Your task to perform on an android device: change alarm snooze length Image 0: 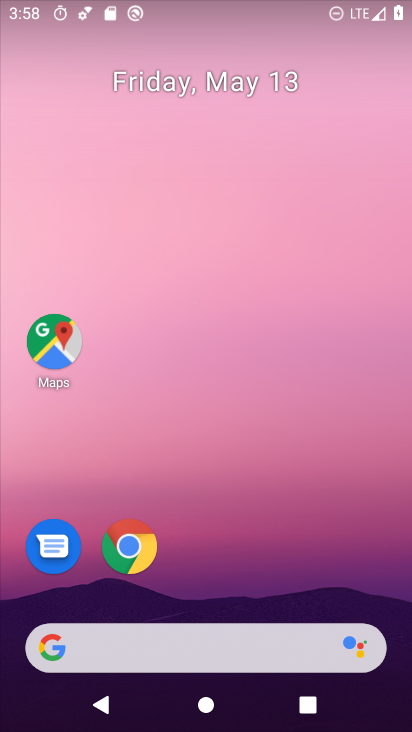
Step 0: drag from (256, 616) to (266, 180)
Your task to perform on an android device: change alarm snooze length Image 1: 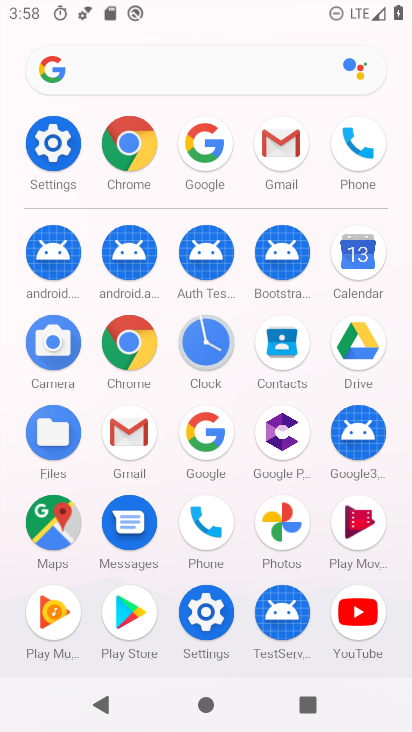
Step 1: click (60, 157)
Your task to perform on an android device: change alarm snooze length Image 2: 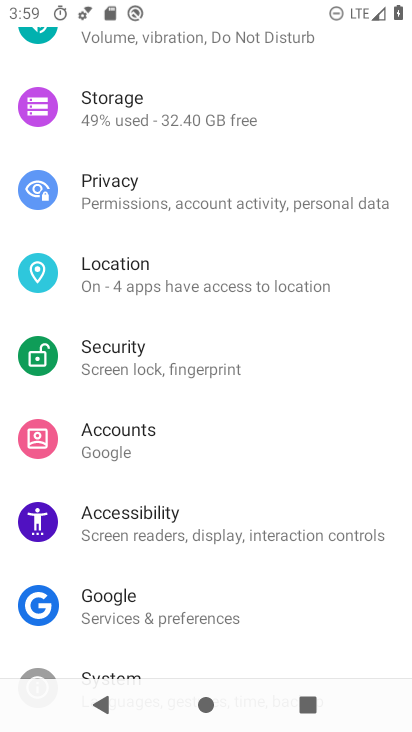
Step 2: press home button
Your task to perform on an android device: change alarm snooze length Image 3: 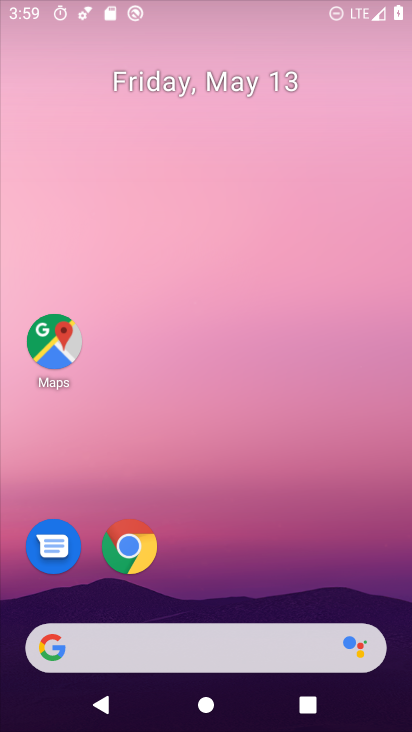
Step 3: drag from (243, 588) to (272, 166)
Your task to perform on an android device: change alarm snooze length Image 4: 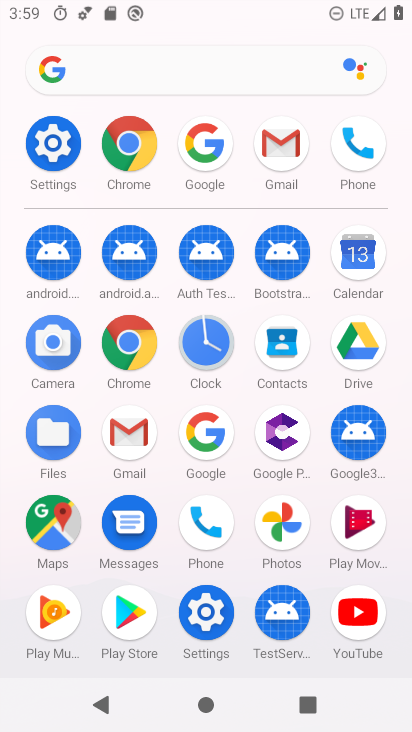
Step 4: click (213, 362)
Your task to perform on an android device: change alarm snooze length Image 5: 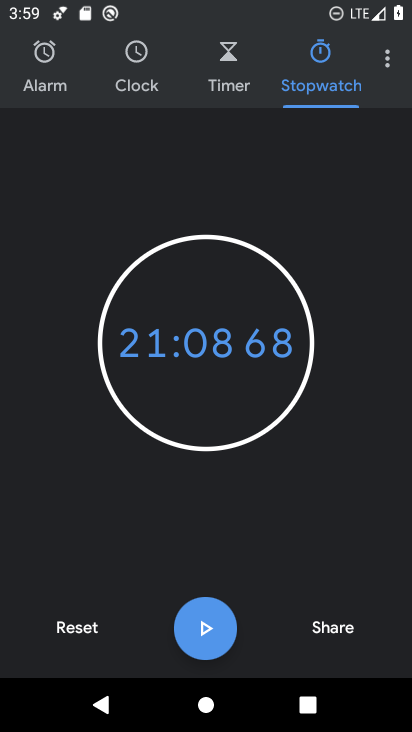
Step 5: click (389, 73)
Your task to perform on an android device: change alarm snooze length Image 6: 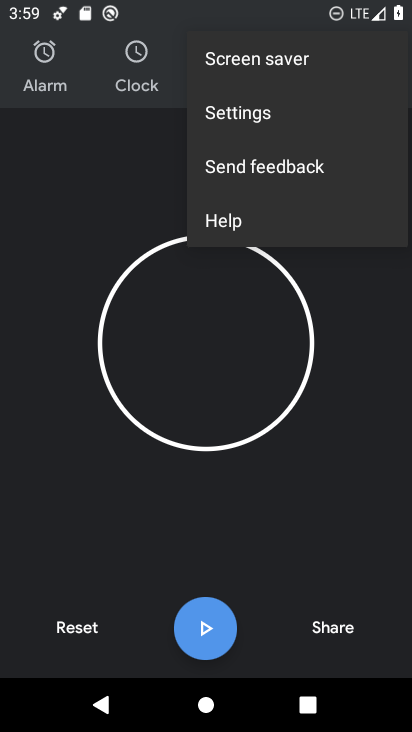
Step 6: click (239, 119)
Your task to perform on an android device: change alarm snooze length Image 7: 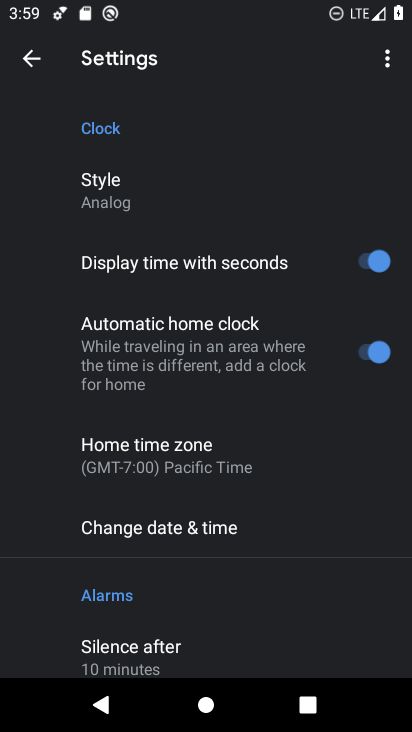
Step 7: drag from (252, 531) to (287, 272)
Your task to perform on an android device: change alarm snooze length Image 8: 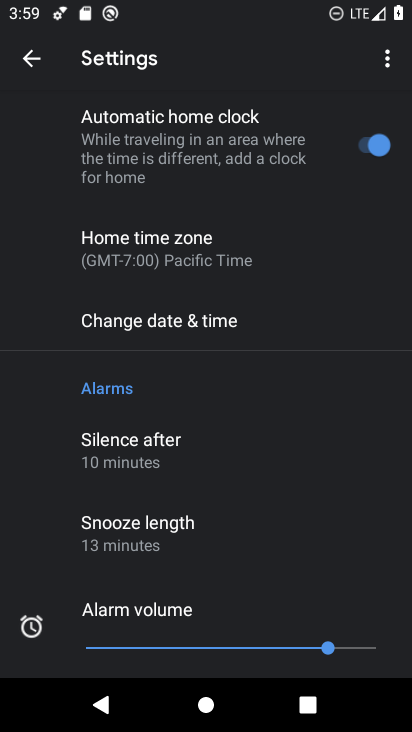
Step 8: click (212, 530)
Your task to perform on an android device: change alarm snooze length Image 9: 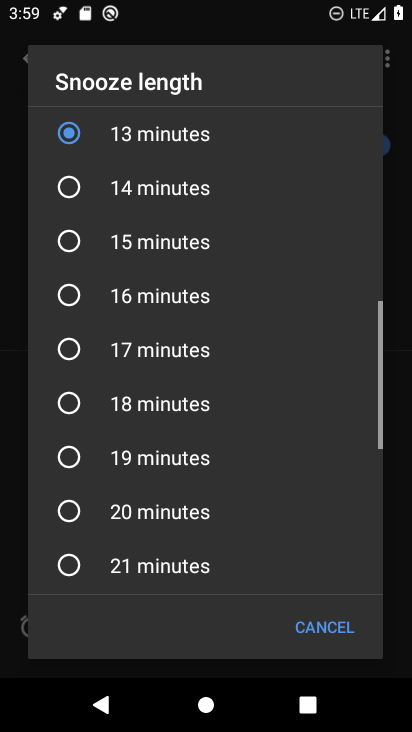
Step 9: drag from (195, 192) to (195, 516)
Your task to perform on an android device: change alarm snooze length Image 10: 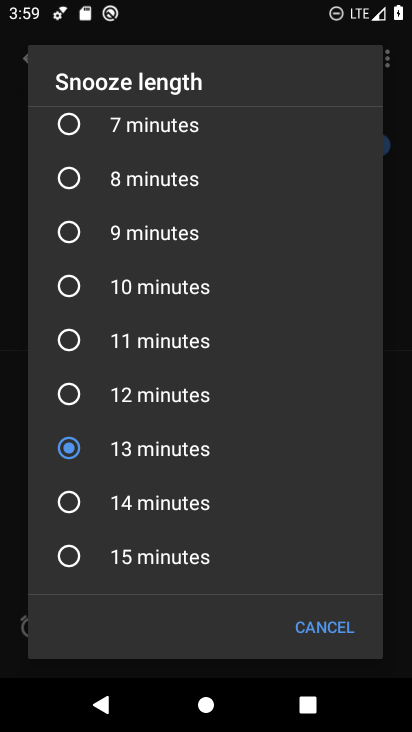
Step 10: click (69, 295)
Your task to perform on an android device: change alarm snooze length Image 11: 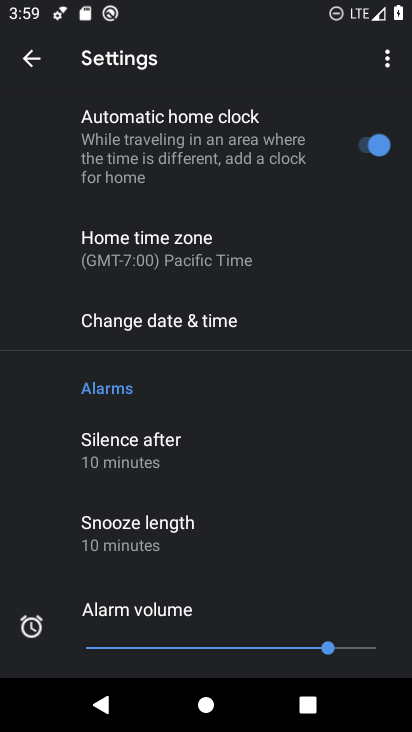
Step 11: task complete